Your task to perform on an android device: Open network settings Image 0: 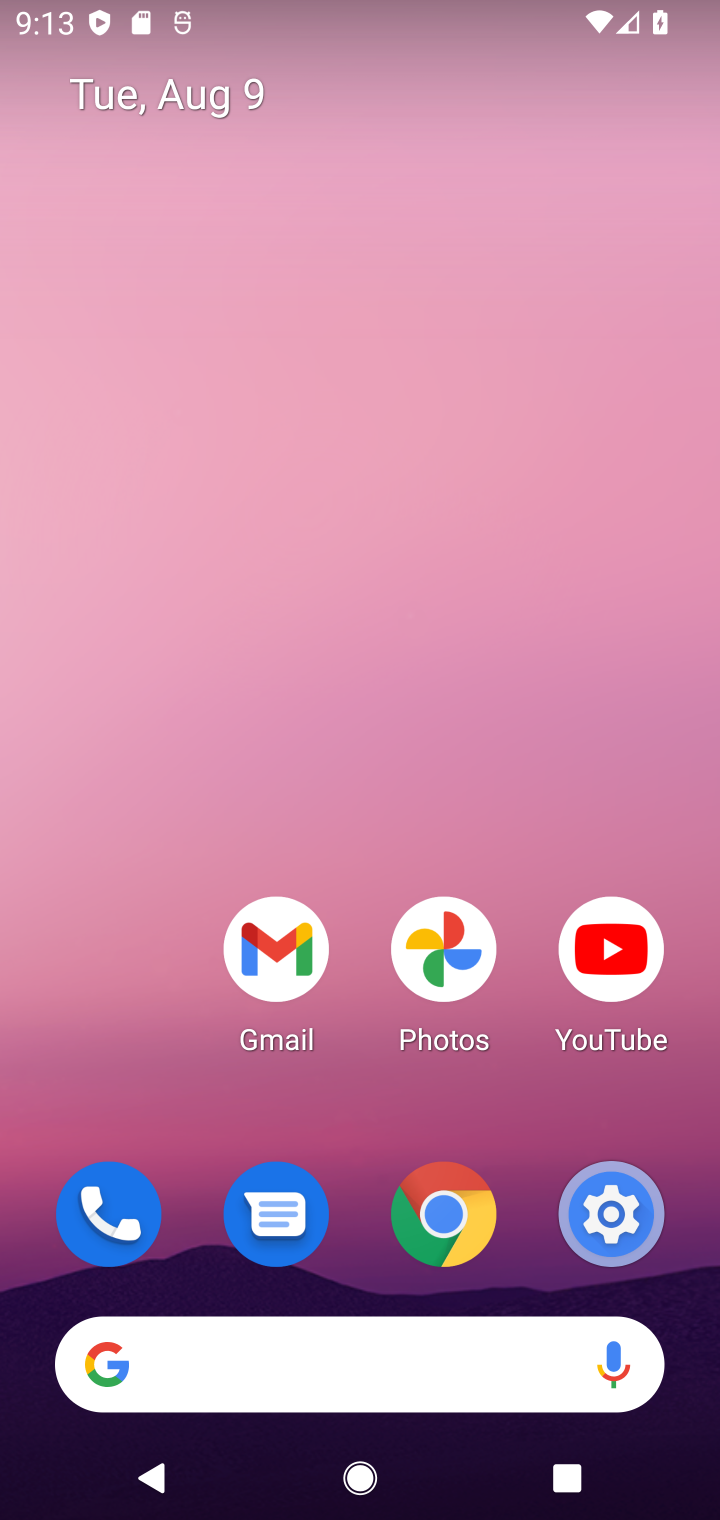
Step 0: click (620, 1177)
Your task to perform on an android device: Open network settings Image 1: 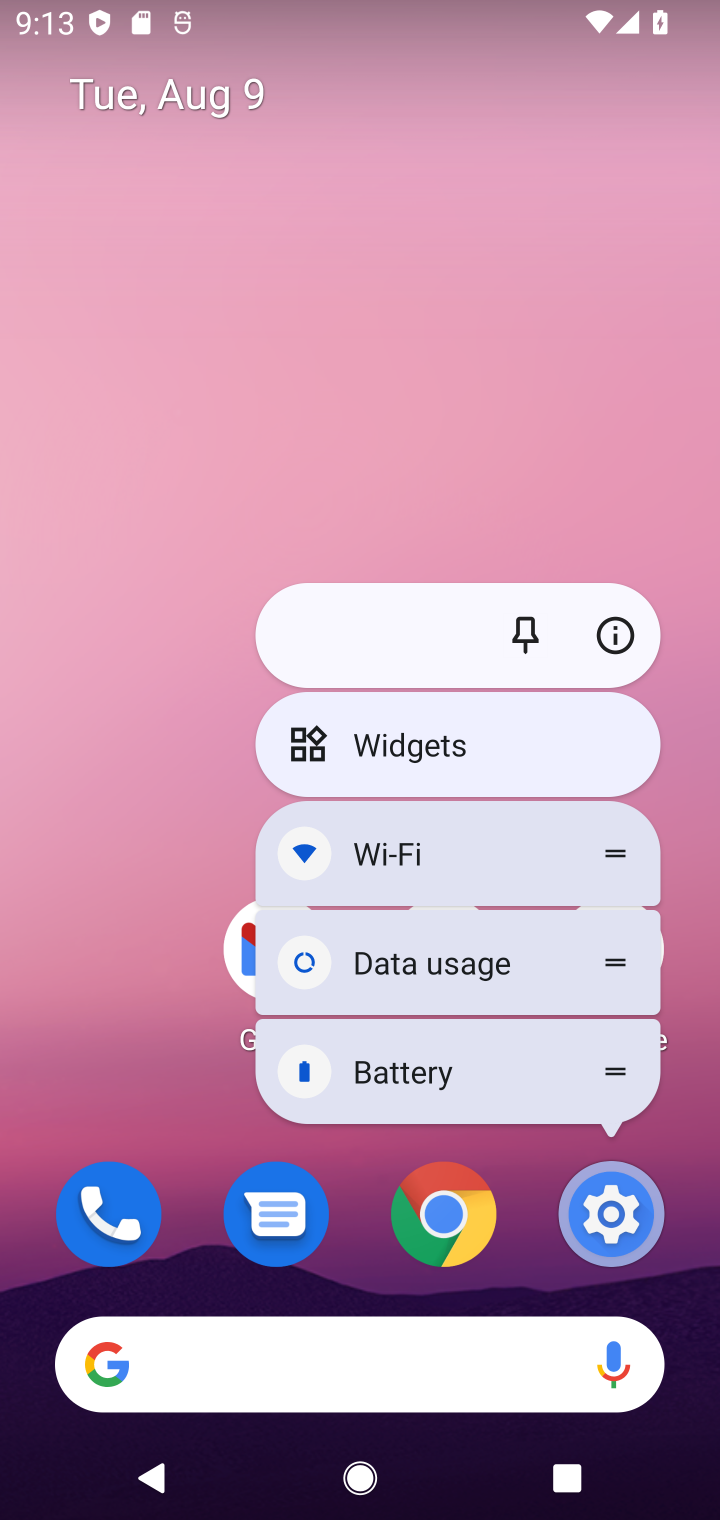
Step 1: click (616, 1204)
Your task to perform on an android device: Open network settings Image 2: 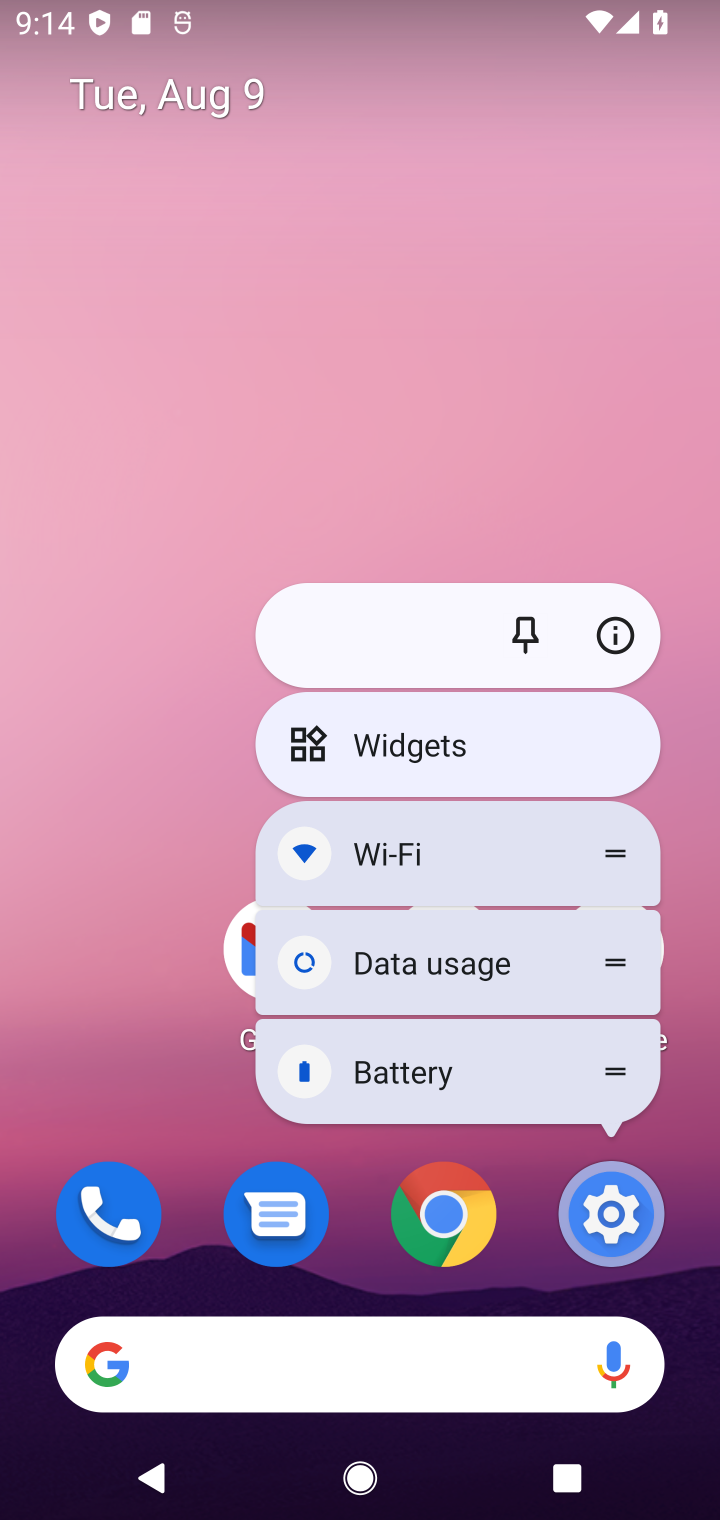
Step 2: task complete